Your task to perform on an android device: turn on javascript in the chrome app Image 0: 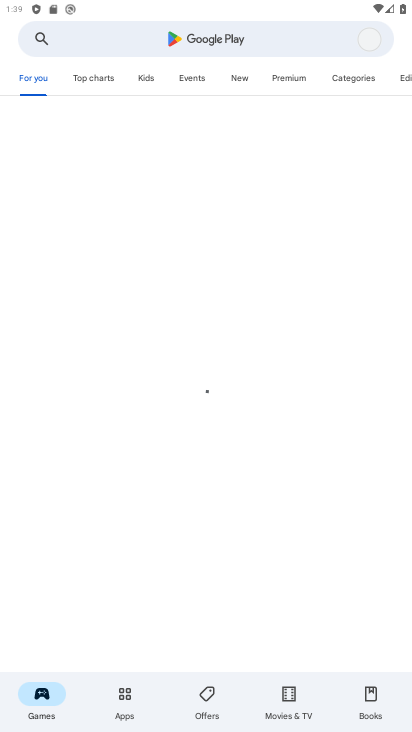
Step 0: press home button
Your task to perform on an android device: turn on javascript in the chrome app Image 1: 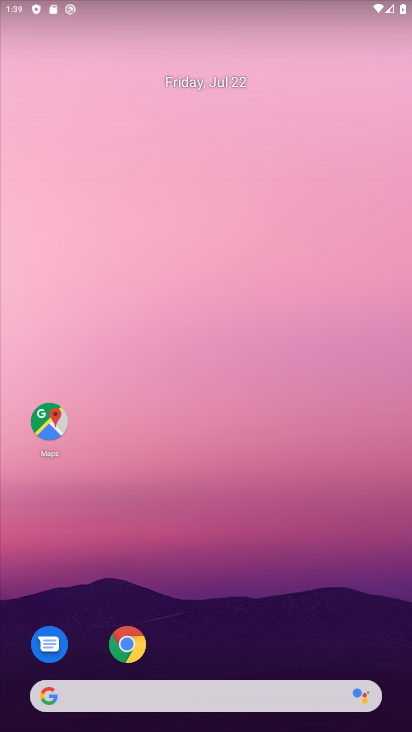
Step 1: click (133, 647)
Your task to perform on an android device: turn on javascript in the chrome app Image 2: 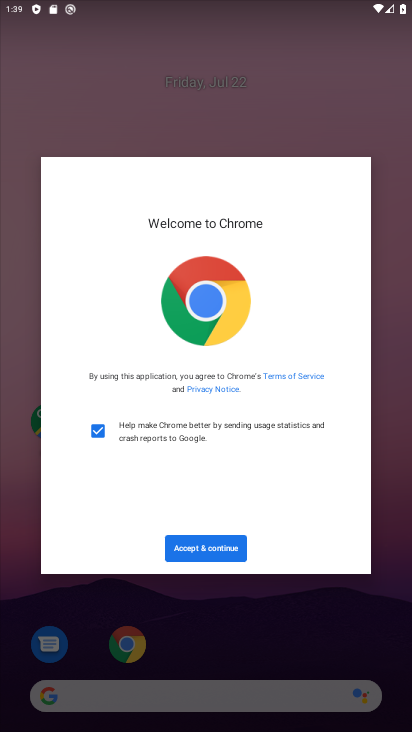
Step 2: click (201, 546)
Your task to perform on an android device: turn on javascript in the chrome app Image 3: 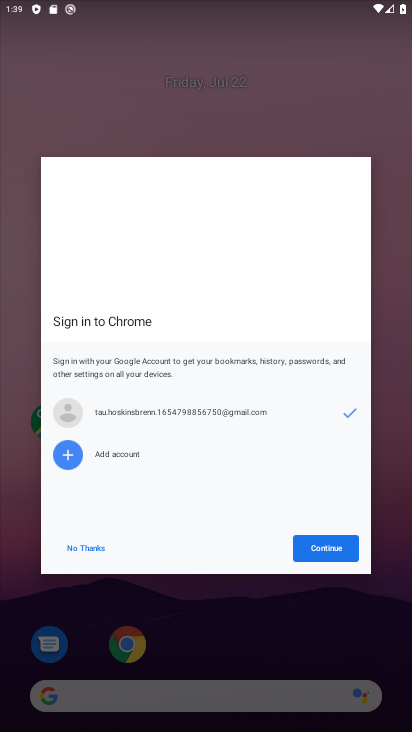
Step 3: click (338, 542)
Your task to perform on an android device: turn on javascript in the chrome app Image 4: 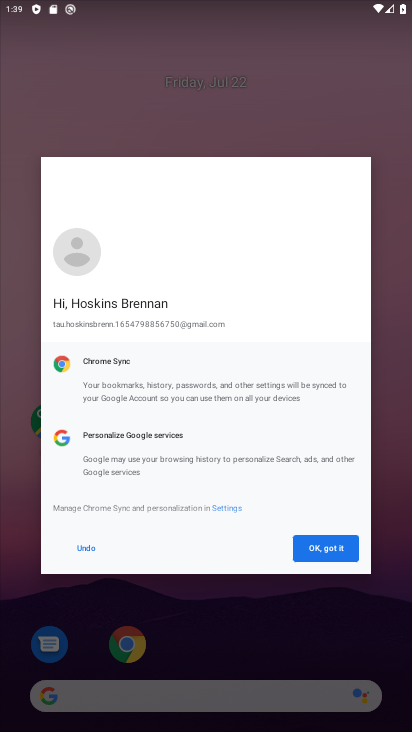
Step 4: click (346, 553)
Your task to perform on an android device: turn on javascript in the chrome app Image 5: 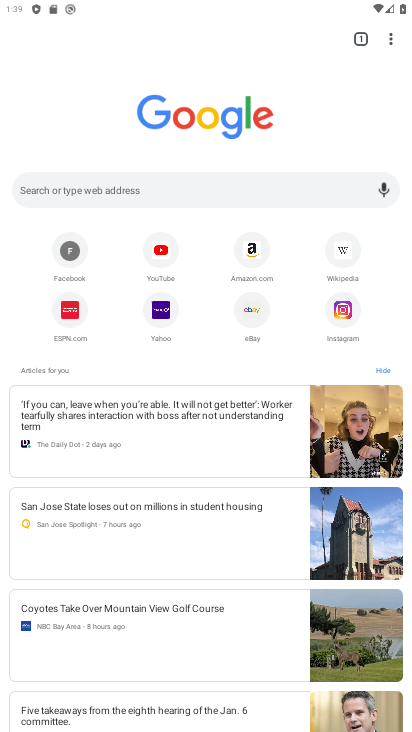
Step 5: click (393, 41)
Your task to perform on an android device: turn on javascript in the chrome app Image 6: 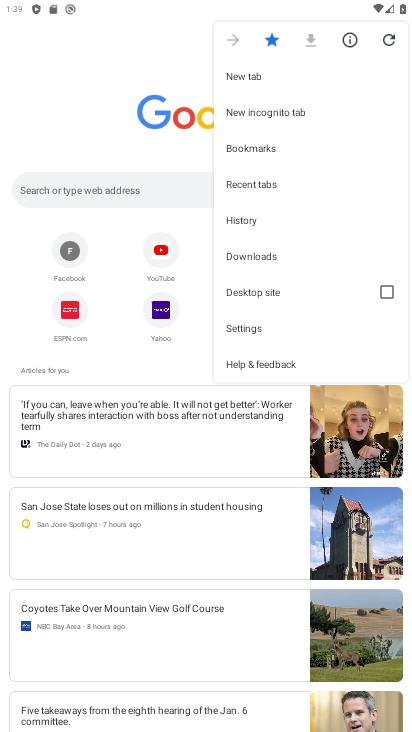
Step 6: click (284, 329)
Your task to perform on an android device: turn on javascript in the chrome app Image 7: 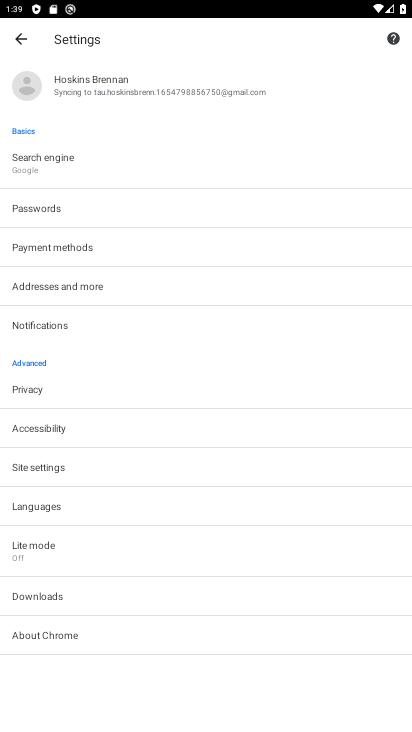
Step 7: click (84, 468)
Your task to perform on an android device: turn on javascript in the chrome app Image 8: 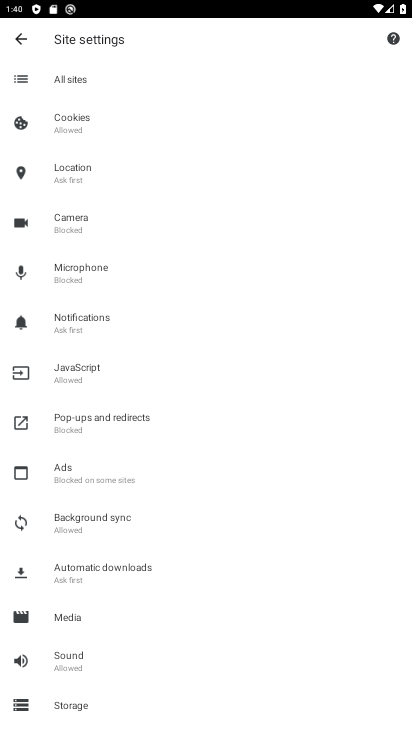
Step 8: click (128, 371)
Your task to perform on an android device: turn on javascript in the chrome app Image 9: 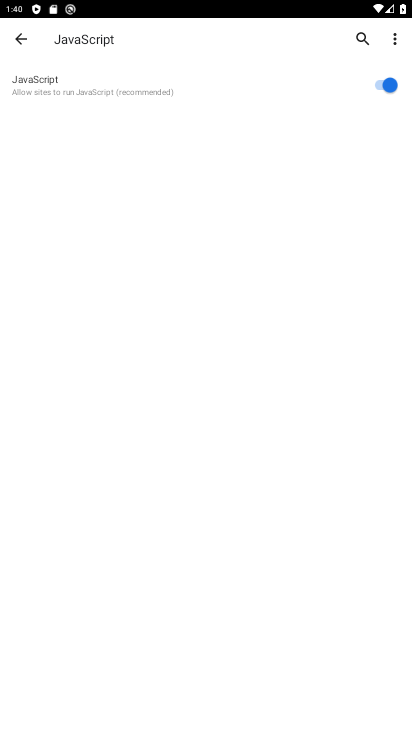
Step 9: task complete